Your task to perform on an android device: What's the weather like in Hong Kong? Image 0: 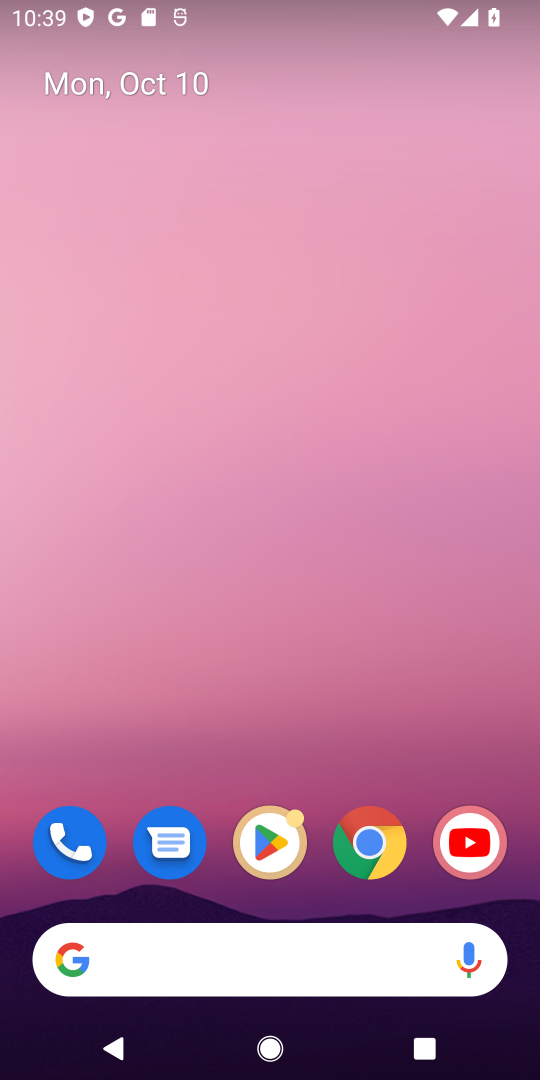
Step 0: click (225, 959)
Your task to perform on an android device: What's the weather like in Hong Kong? Image 1: 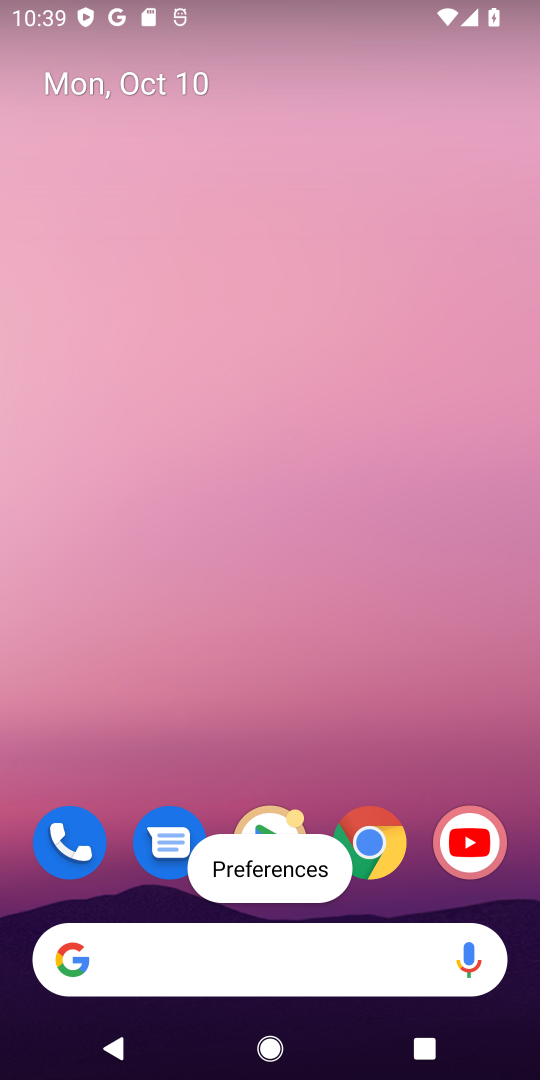
Step 1: click (202, 962)
Your task to perform on an android device: What's the weather like in Hong Kong? Image 2: 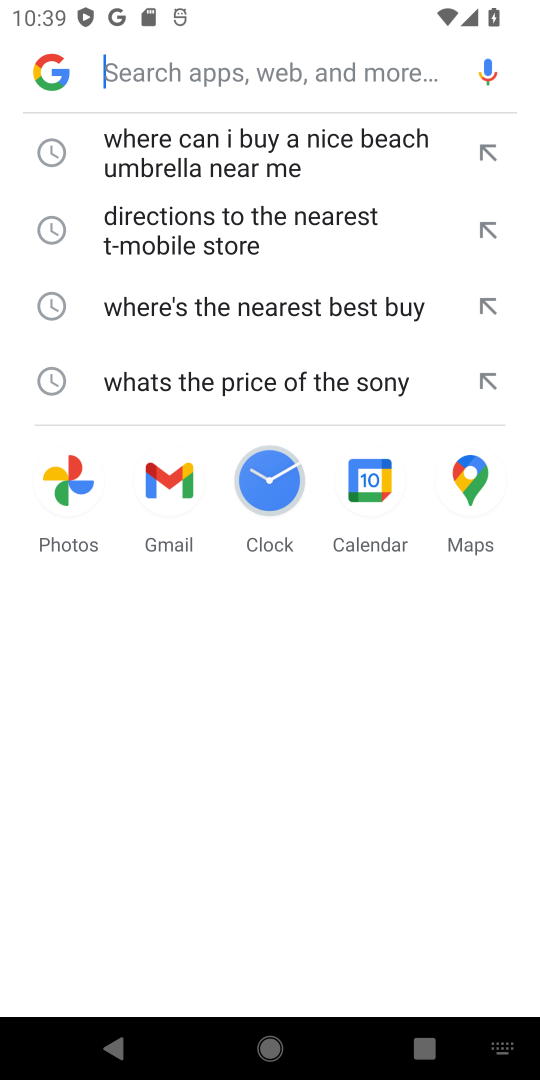
Step 2: click (152, 72)
Your task to perform on an android device: What's the weather like in Hong Kong? Image 3: 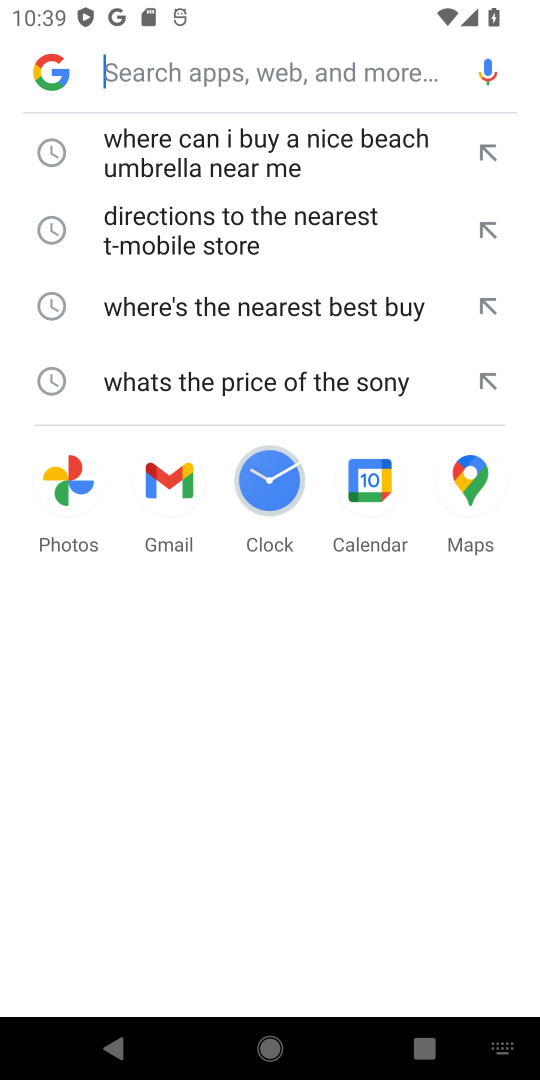
Step 3: type "What's the weather like in Hong Kong?"
Your task to perform on an android device: What's the weather like in Hong Kong? Image 4: 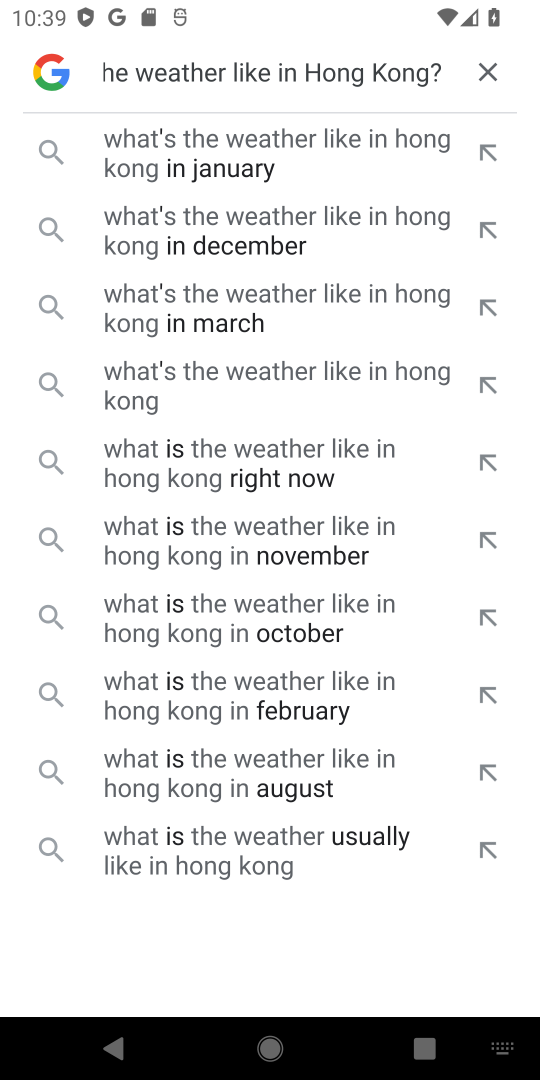
Step 4: click (304, 166)
Your task to perform on an android device: What's the weather like in Hong Kong? Image 5: 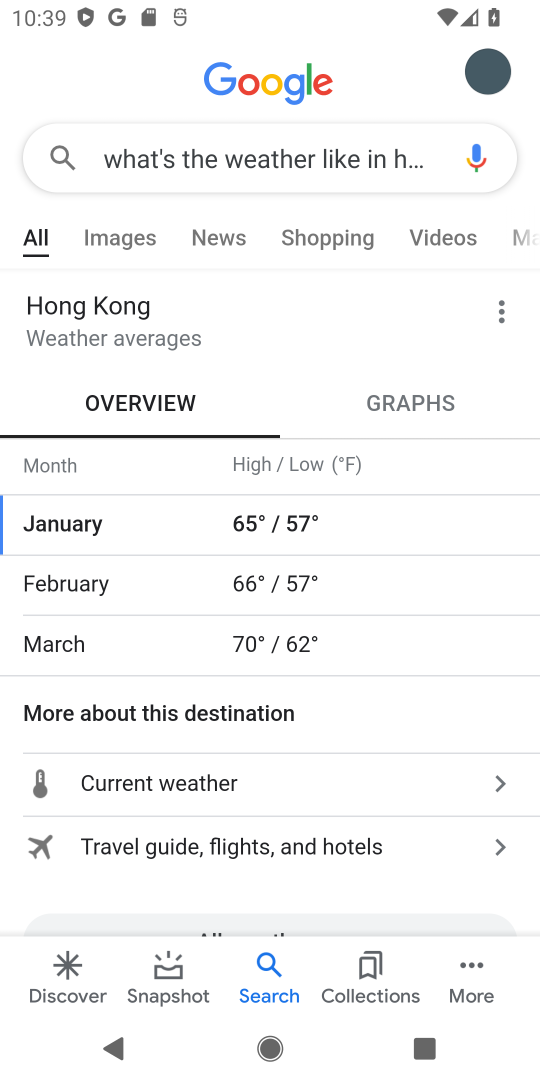
Step 5: task complete